Your task to perform on an android device: Set the phone to "Do not disturb". Image 0: 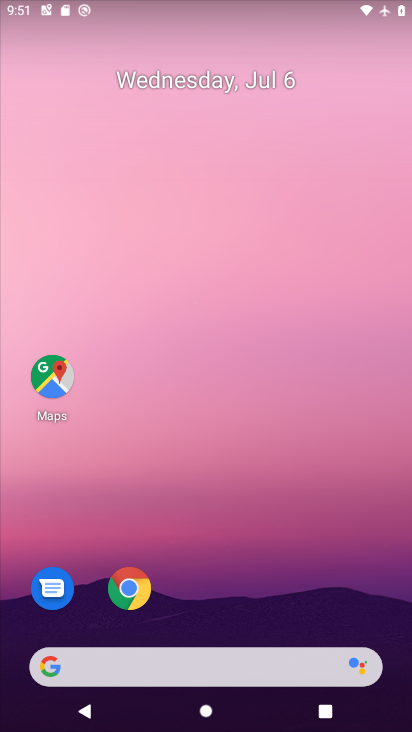
Step 0: drag from (175, 663) to (359, 204)
Your task to perform on an android device: Set the phone to "Do not disturb". Image 1: 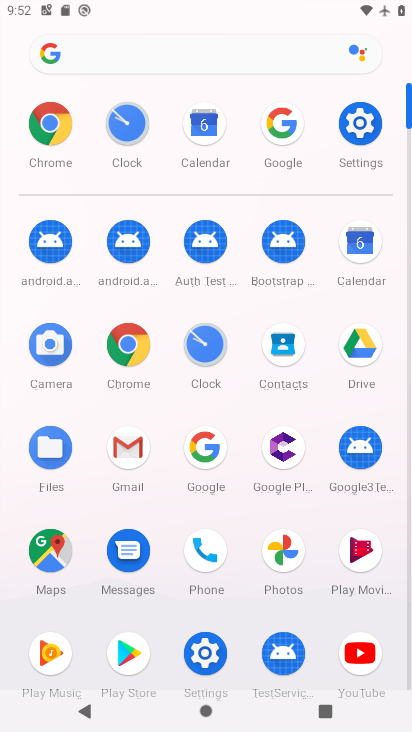
Step 1: click (362, 122)
Your task to perform on an android device: Set the phone to "Do not disturb". Image 2: 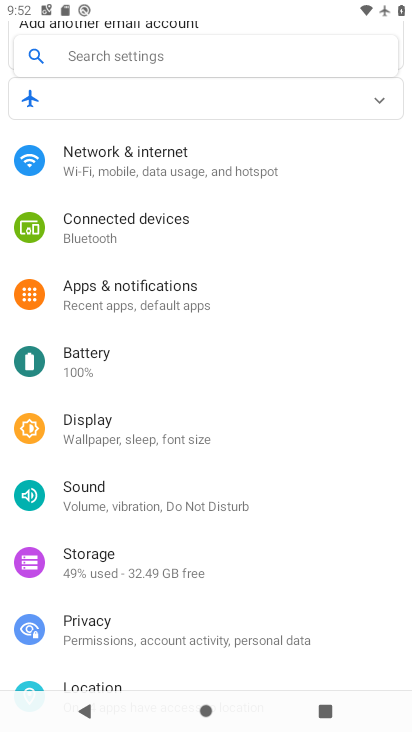
Step 2: click (165, 505)
Your task to perform on an android device: Set the phone to "Do not disturb". Image 3: 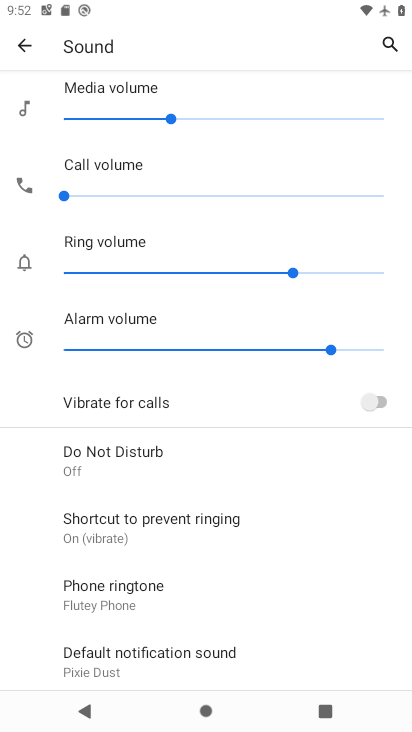
Step 3: click (115, 468)
Your task to perform on an android device: Set the phone to "Do not disturb". Image 4: 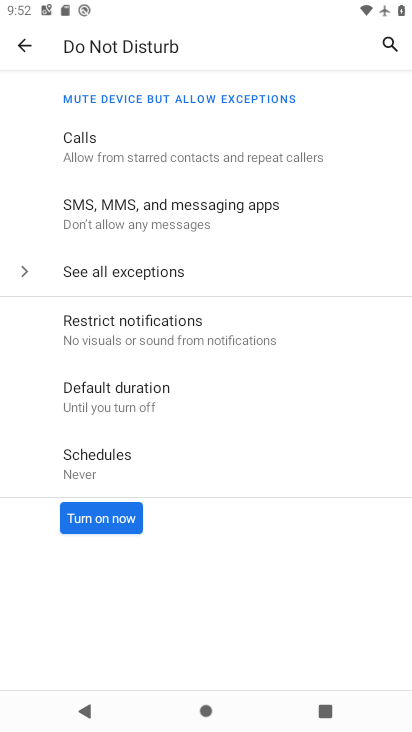
Step 4: click (115, 511)
Your task to perform on an android device: Set the phone to "Do not disturb". Image 5: 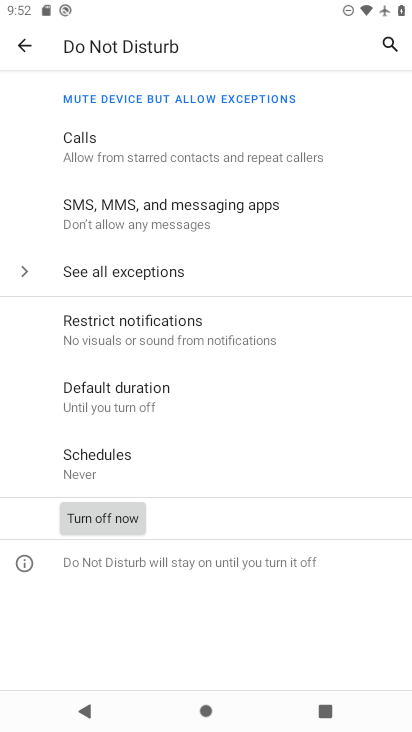
Step 5: task complete